Your task to perform on an android device: move a message to another label in the gmail app Image 0: 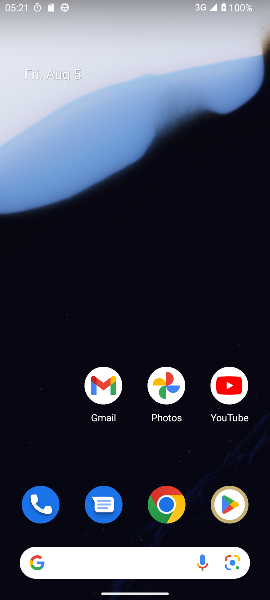
Step 0: click (107, 410)
Your task to perform on an android device: move a message to another label in the gmail app Image 1: 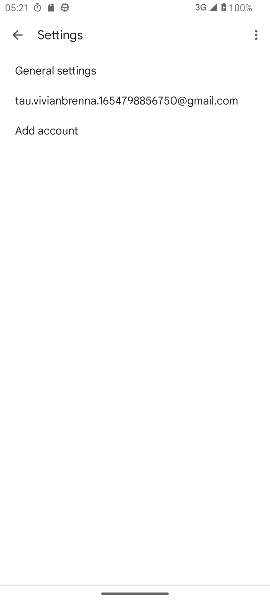
Step 1: click (12, 31)
Your task to perform on an android device: move a message to another label in the gmail app Image 2: 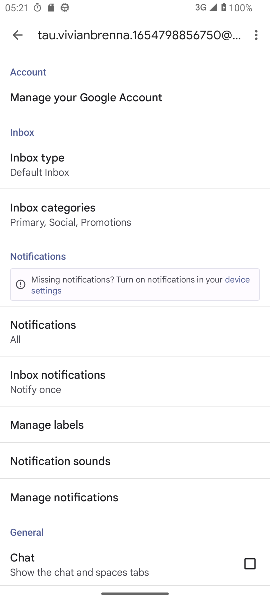
Step 2: click (12, 31)
Your task to perform on an android device: move a message to another label in the gmail app Image 3: 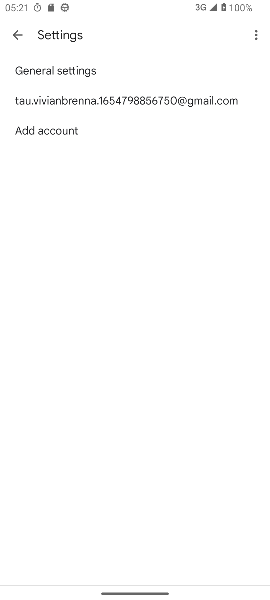
Step 3: click (12, 31)
Your task to perform on an android device: move a message to another label in the gmail app Image 4: 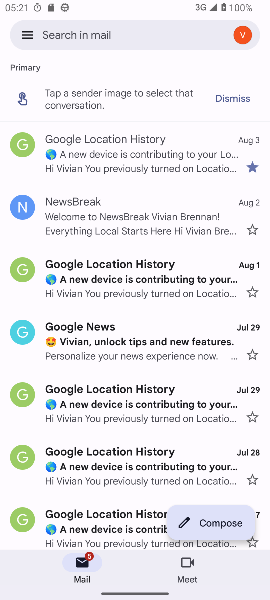
Step 4: click (16, 33)
Your task to perform on an android device: move a message to another label in the gmail app Image 5: 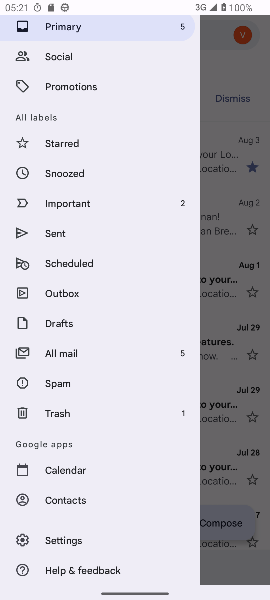
Step 5: task complete